Your task to perform on an android device: Open my contact list Image 0: 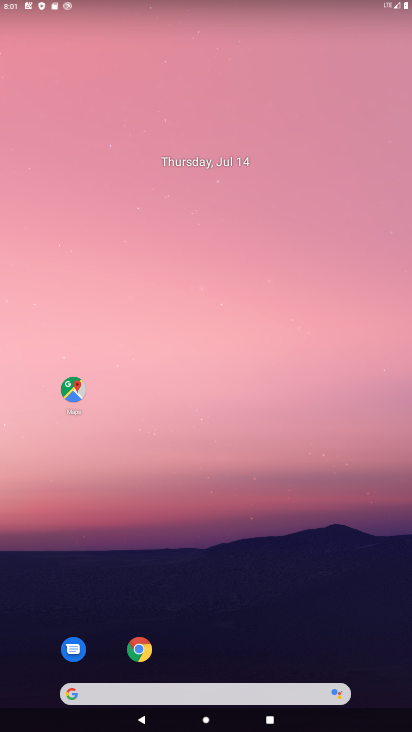
Step 0: drag from (231, 717) to (164, 23)
Your task to perform on an android device: Open my contact list Image 1: 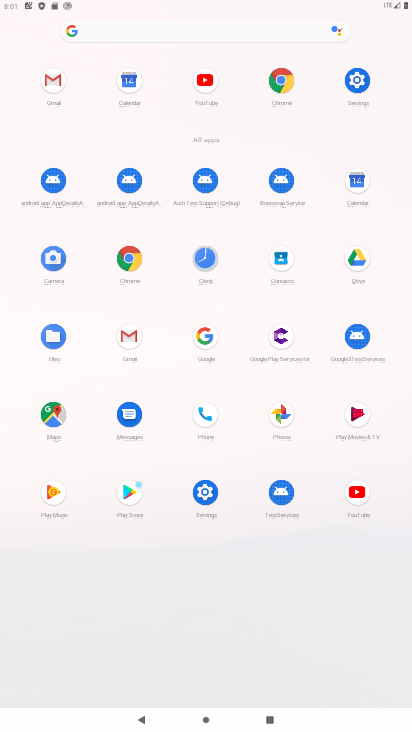
Step 1: click (287, 256)
Your task to perform on an android device: Open my contact list Image 2: 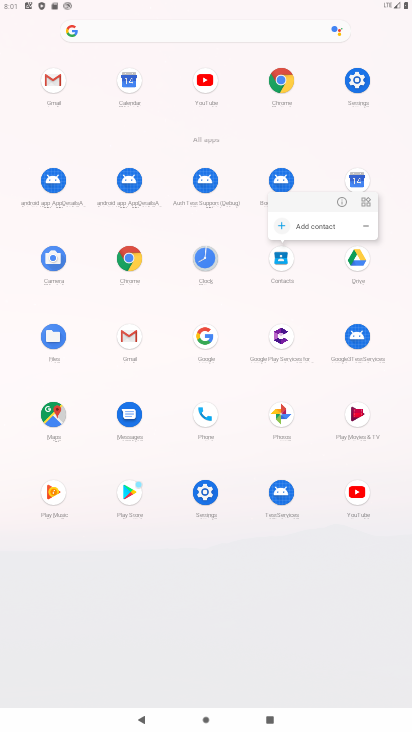
Step 2: click (287, 256)
Your task to perform on an android device: Open my contact list Image 3: 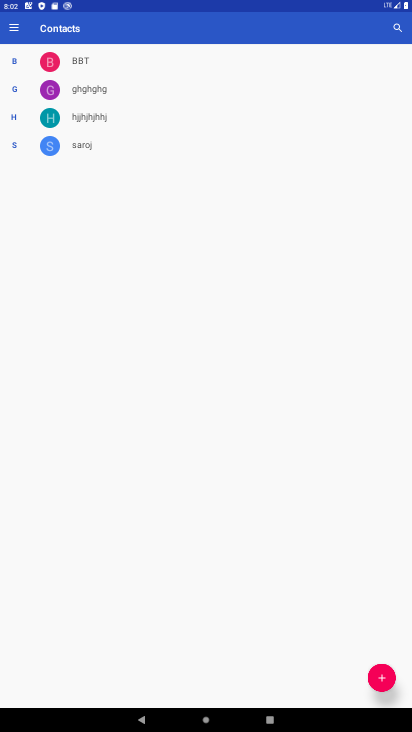
Step 3: task complete